Your task to perform on an android device: open chrome and create a bookmark for the current page Image 0: 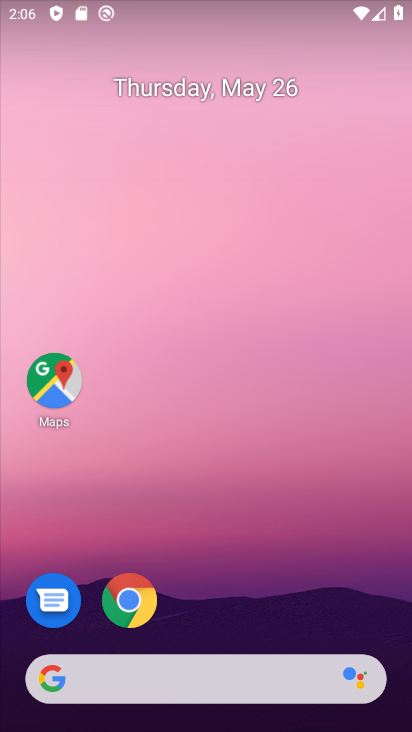
Step 0: click (128, 607)
Your task to perform on an android device: open chrome and create a bookmark for the current page Image 1: 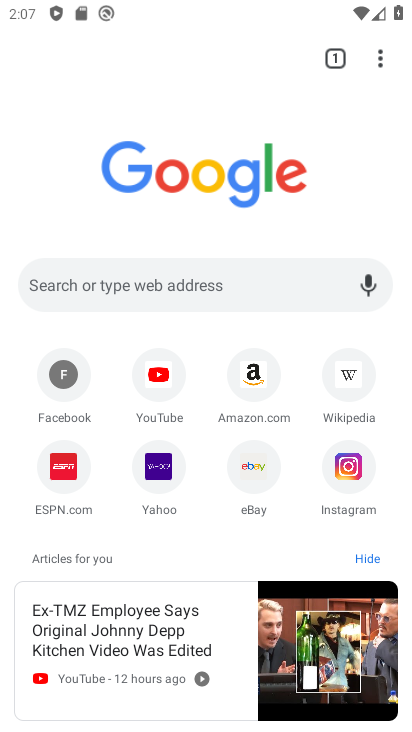
Step 1: click (372, 61)
Your task to perform on an android device: open chrome and create a bookmark for the current page Image 2: 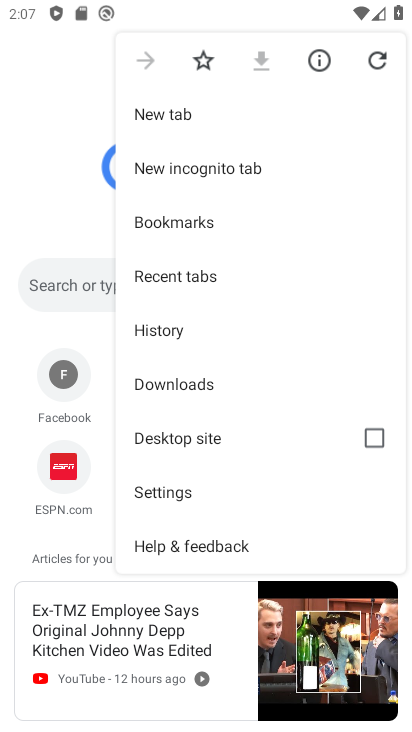
Step 2: click (203, 79)
Your task to perform on an android device: open chrome and create a bookmark for the current page Image 3: 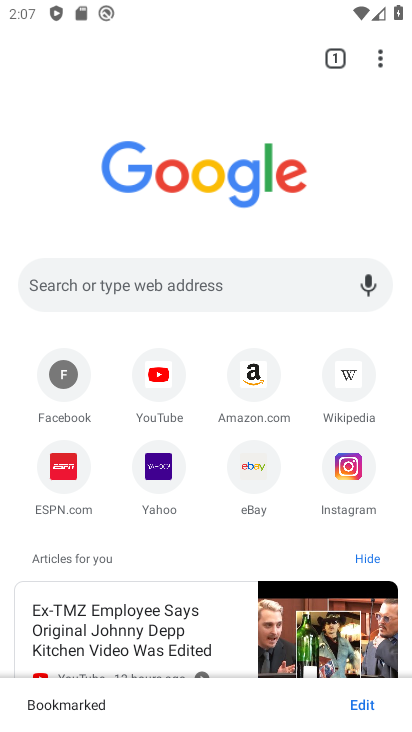
Step 3: task complete